Your task to perform on an android device: toggle priority inbox in the gmail app Image 0: 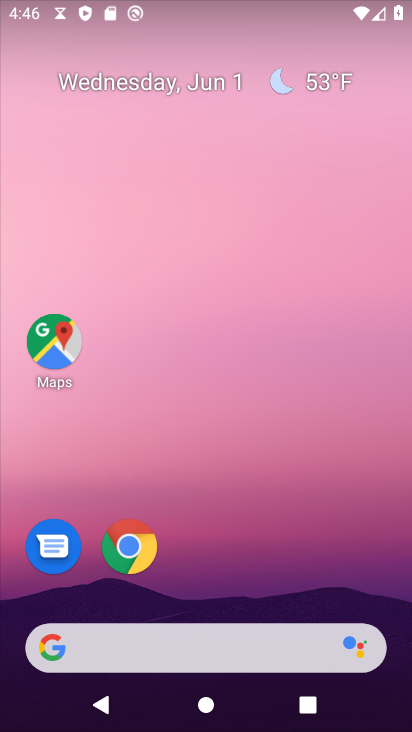
Step 0: drag from (302, 556) to (221, 84)
Your task to perform on an android device: toggle priority inbox in the gmail app Image 1: 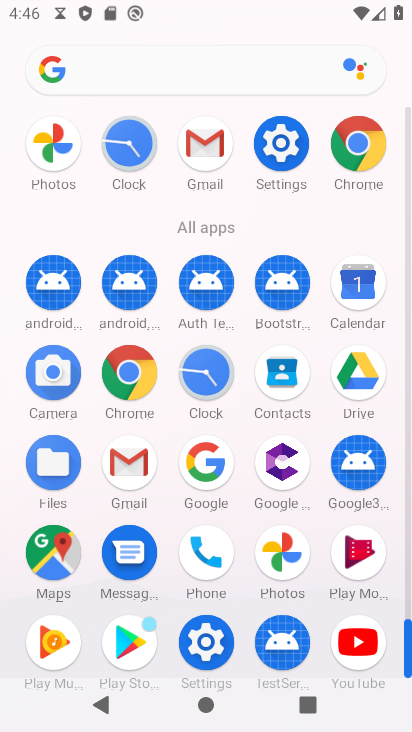
Step 1: drag from (8, 568) to (10, 161)
Your task to perform on an android device: toggle priority inbox in the gmail app Image 2: 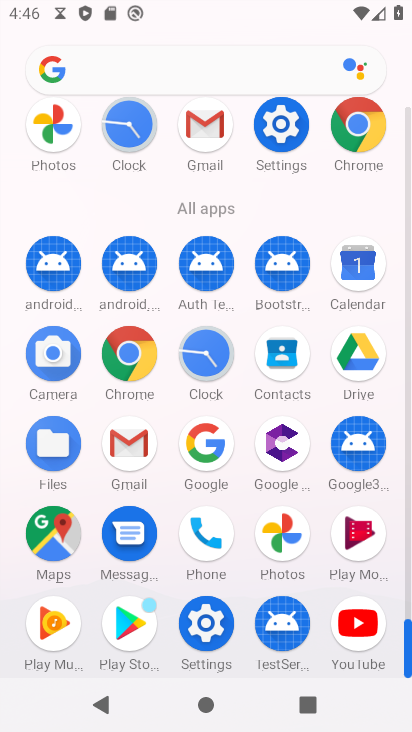
Step 2: click (131, 436)
Your task to perform on an android device: toggle priority inbox in the gmail app Image 3: 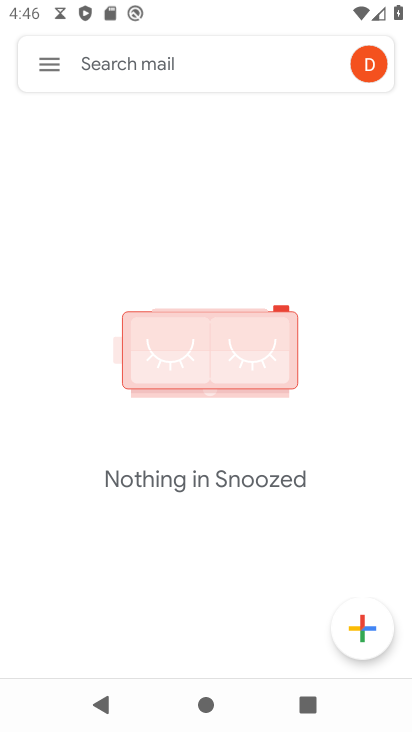
Step 3: click (39, 69)
Your task to perform on an android device: toggle priority inbox in the gmail app Image 4: 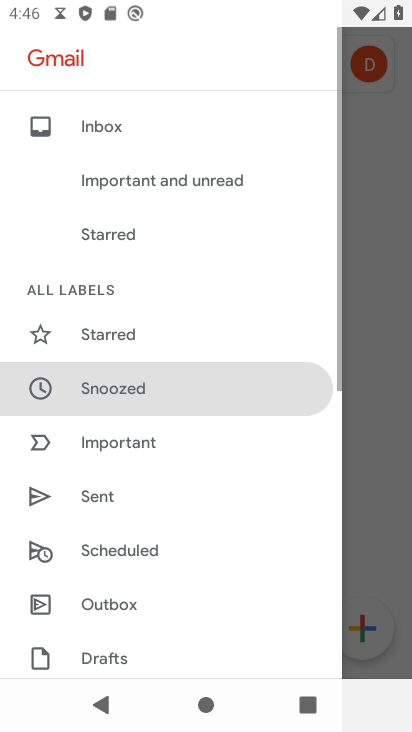
Step 4: drag from (166, 592) to (194, 147)
Your task to perform on an android device: toggle priority inbox in the gmail app Image 5: 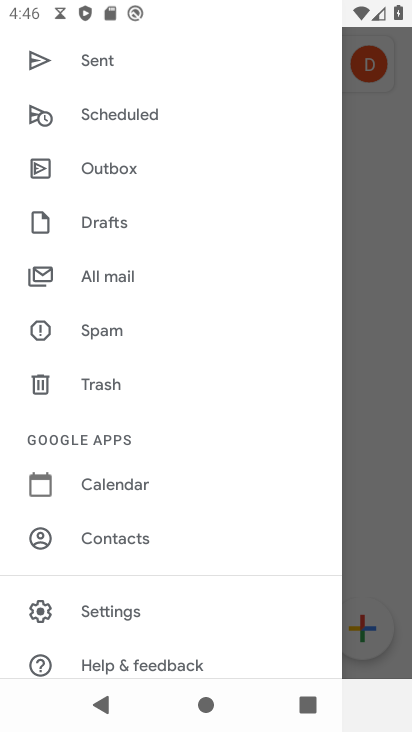
Step 5: click (129, 616)
Your task to perform on an android device: toggle priority inbox in the gmail app Image 6: 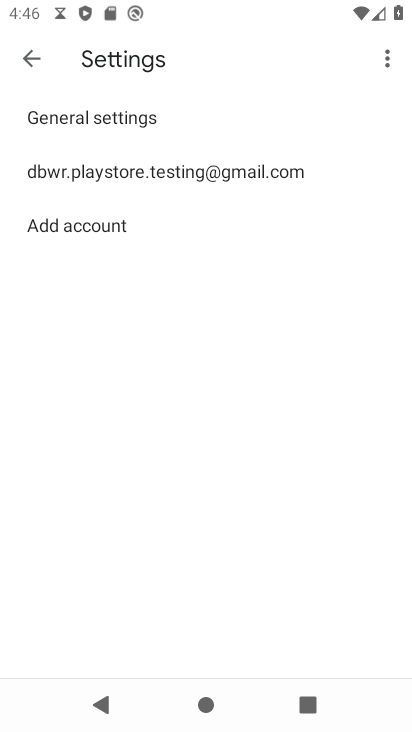
Step 6: click (151, 171)
Your task to perform on an android device: toggle priority inbox in the gmail app Image 7: 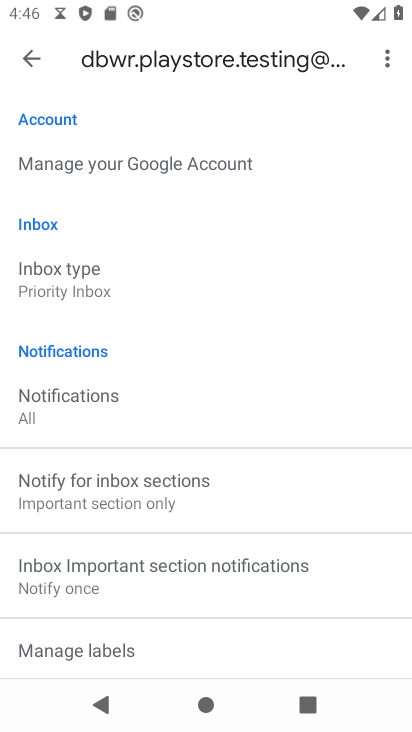
Step 7: click (106, 287)
Your task to perform on an android device: toggle priority inbox in the gmail app Image 8: 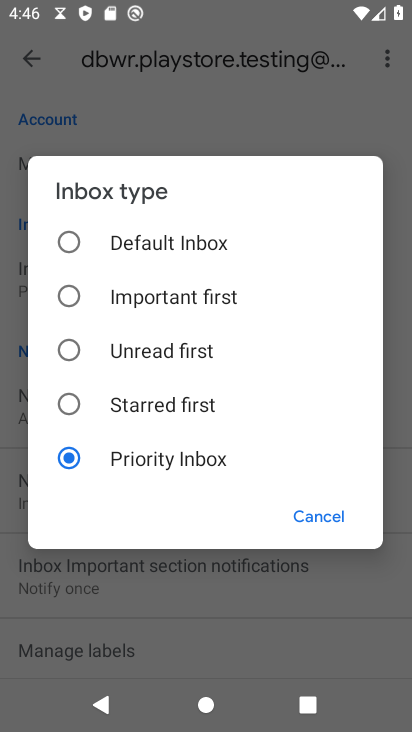
Step 8: click (128, 240)
Your task to perform on an android device: toggle priority inbox in the gmail app Image 9: 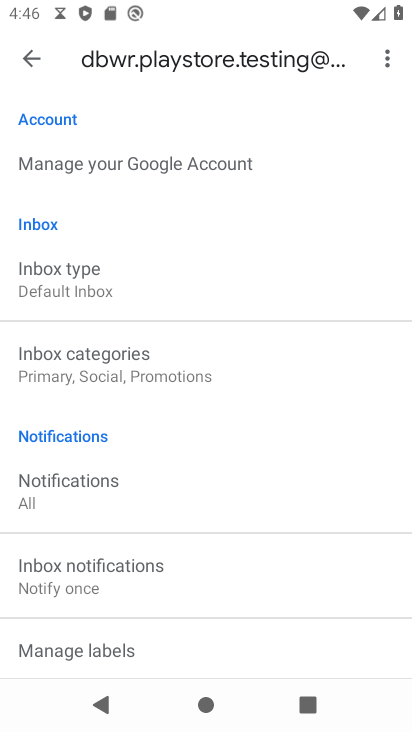
Step 9: drag from (194, 473) to (206, 227)
Your task to perform on an android device: toggle priority inbox in the gmail app Image 10: 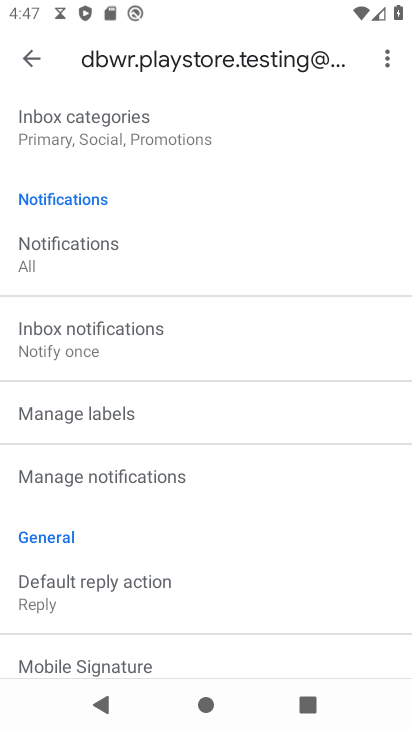
Step 10: drag from (181, 150) to (227, 554)
Your task to perform on an android device: toggle priority inbox in the gmail app Image 11: 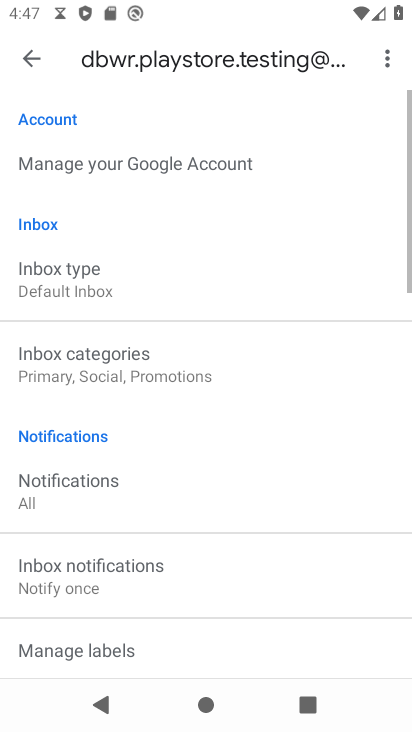
Step 11: click (135, 267)
Your task to perform on an android device: toggle priority inbox in the gmail app Image 12: 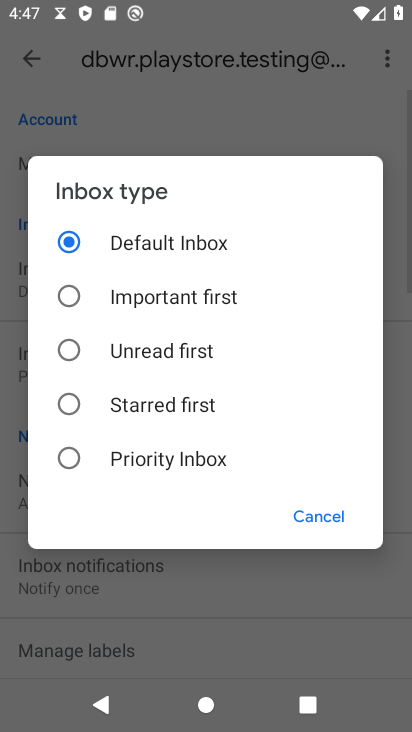
Step 12: click (143, 462)
Your task to perform on an android device: toggle priority inbox in the gmail app Image 13: 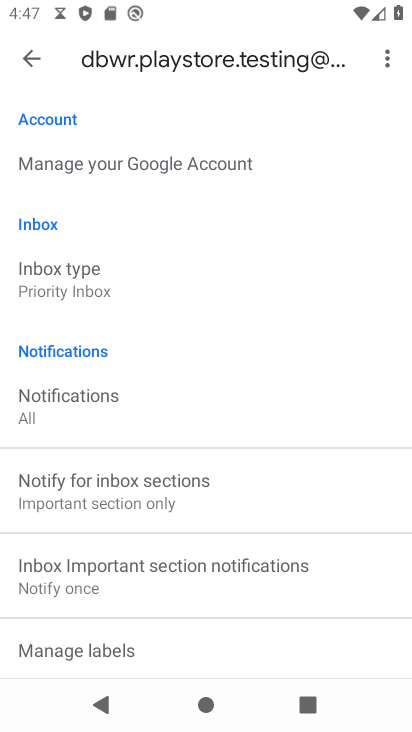
Step 13: task complete